Your task to perform on an android device: stop showing notifications on the lock screen Image 0: 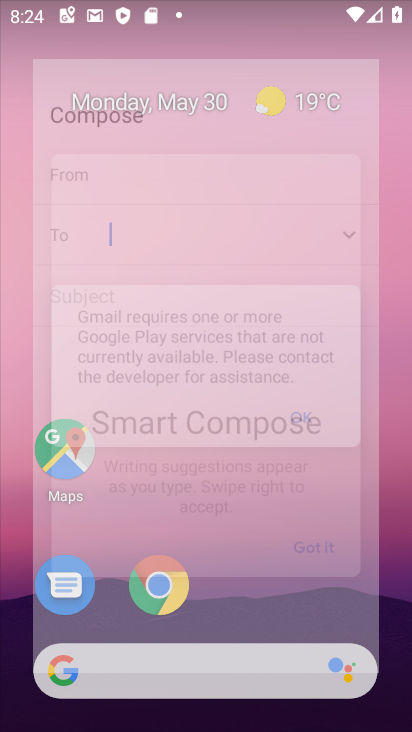
Step 0: drag from (213, 644) to (280, 156)
Your task to perform on an android device: stop showing notifications on the lock screen Image 1: 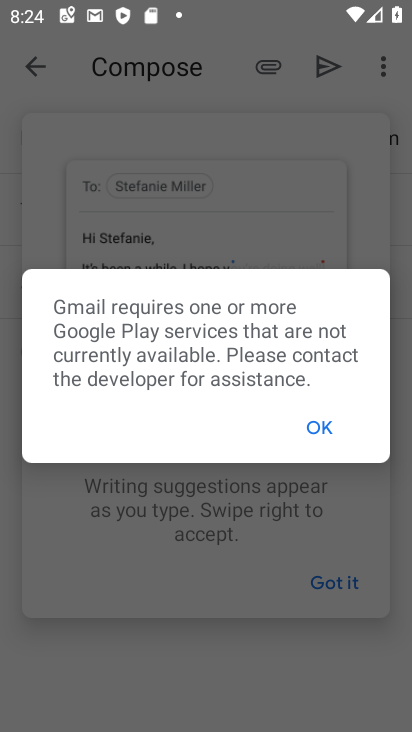
Step 1: press home button
Your task to perform on an android device: stop showing notifications on the lock screen Image 2: 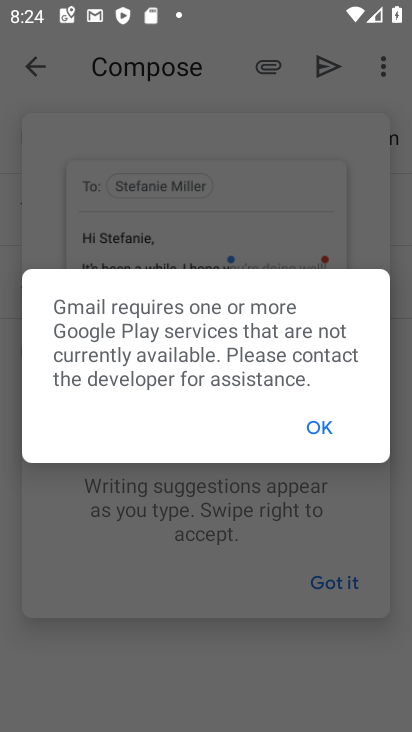
Step 2: press home button
Your task to perform on an android device: stop showing notifications on the lock screen Image 3: 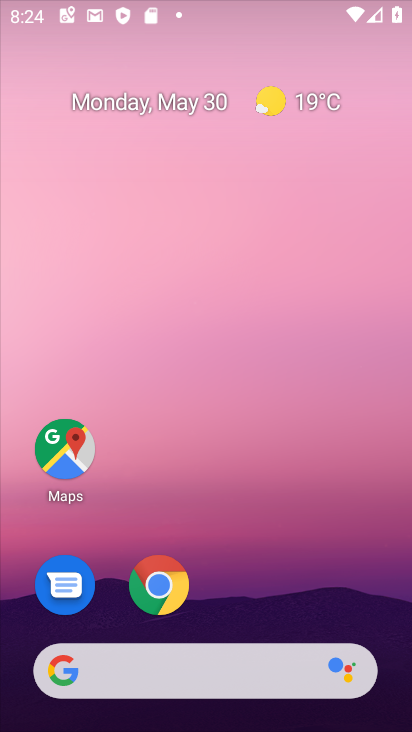
Step 3: drag from (319, 599) to (384, 404)
Your task to perform on an android device: stop showing notifications on the lock screen Image 4: 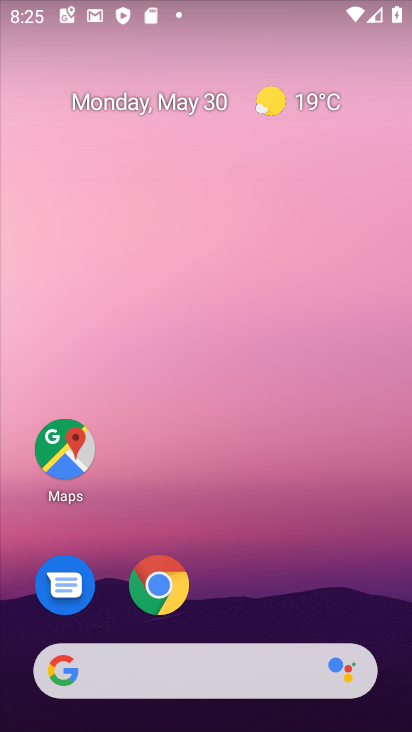
Step 4: drag from (185, 579) to (339, 0)
Your task to perform on an android device: stop showing notifications on the lock screen Image 5: 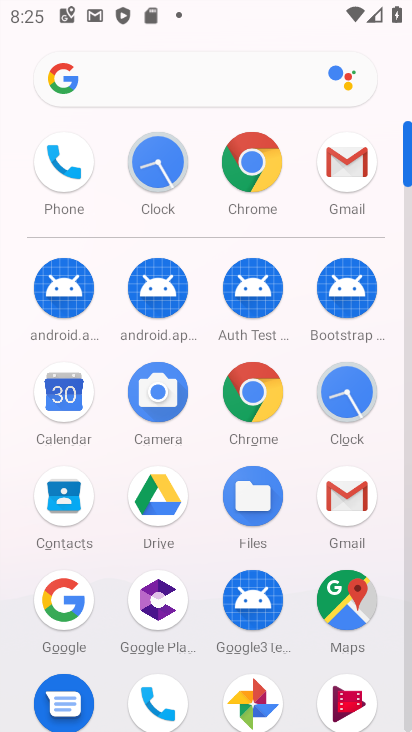
Step 5: drag from (184, 631) to (226, 183)
Your task to perform on an android device: stop showing notifications on the lock screen Image 6: 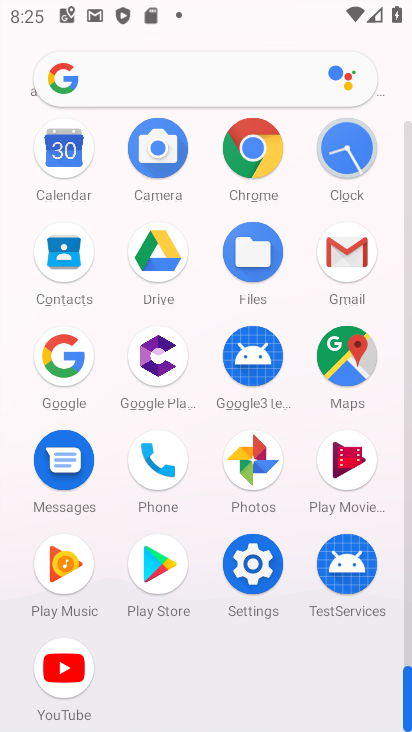
Step 6: click (249, 570)
Your task to perform on an android device: stop showing notifications on the lock screen Image 7: 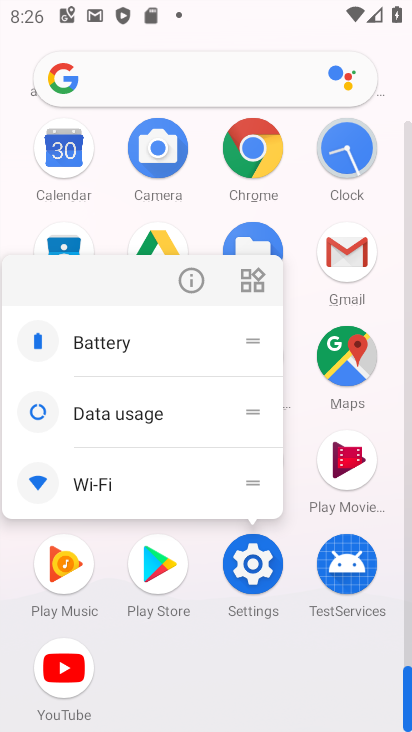
Step 7: click (197, 283)
Your task to perform on an android device: stop showing notifications on the lock screen Image 8: 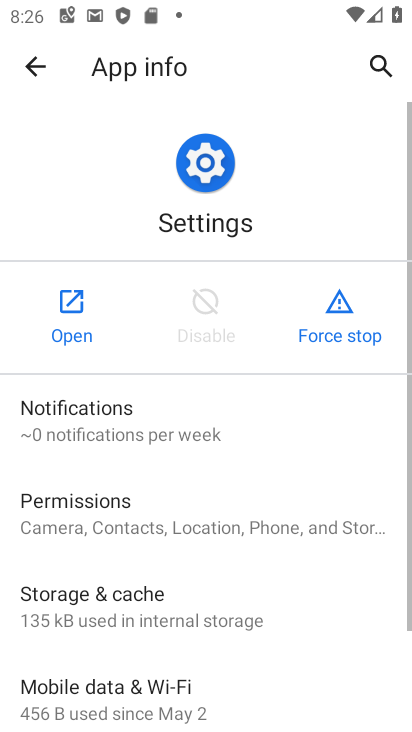
Step 8: click (61, 297)
Your task to perform on an android device: stop showing notifications on the lock screen Image 9: 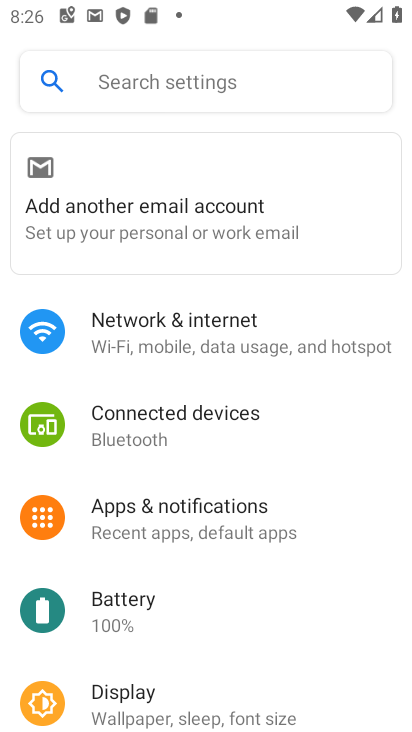
Step 9: click (197, 510)
Your task to perform on an android device: stop showing notifications on the lock screen Image 10: 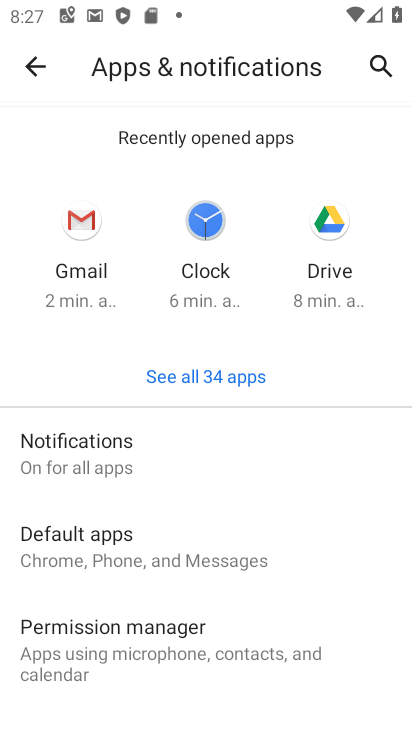
Step 10: click (82, 464)
Your task to perform on an android device: stop showing notifications on the lock screen Image 11: 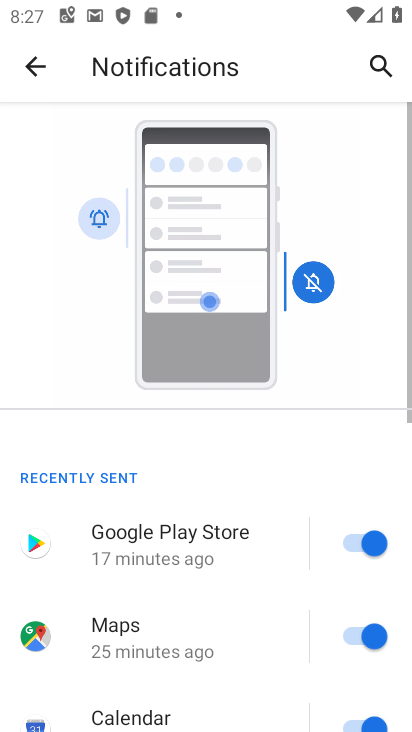
Step 11: drag from (145, 588) to (375, 154)
Your task to perform on an android device: stop showing notifications on the lock screen Image 12: 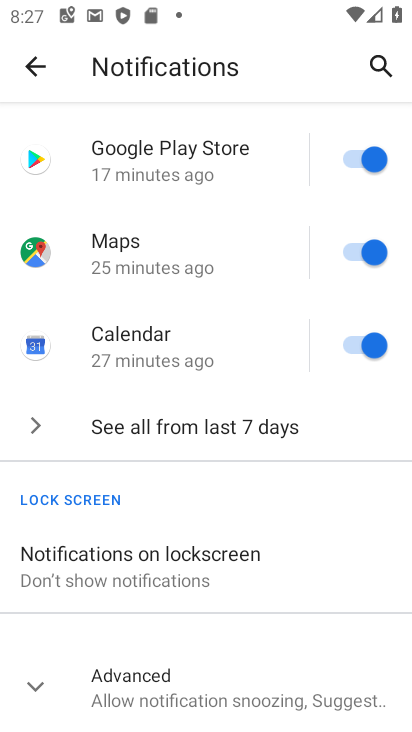
Step 12: click (153, 574)
Your task to perform on an android device: stop showing notifications on the lock screen Image 13: 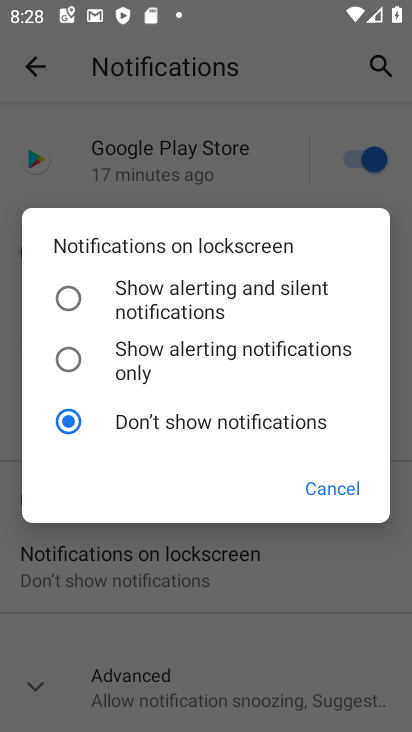
Step 13: task complete